Your task to perform on an android device: toggle sleep mode Image 0: 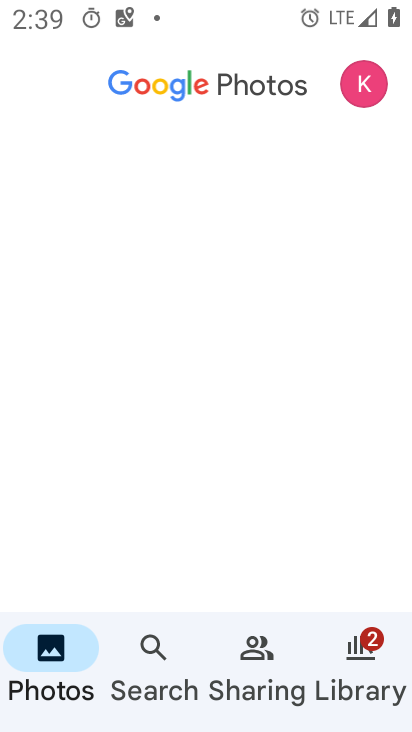
Step 0: press home button
Your task to perform on an android device: toggle sleep mode Image 1: 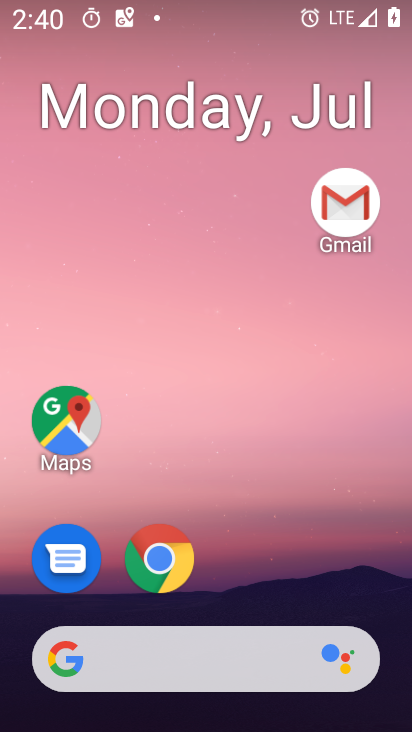
Step 1: drag from (340, 577) to (327, 121)
Your task to perform on an android device: toggle sleep mode Image 2: 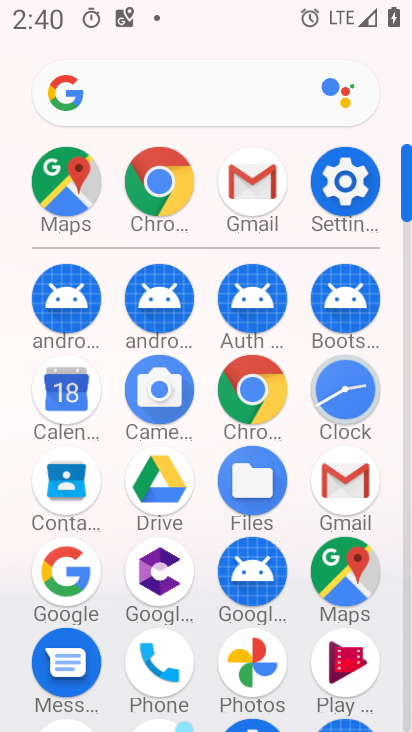
Step 2: click (350, 197)
Your task to perform on an android device: toggle sleep mode Image 3: 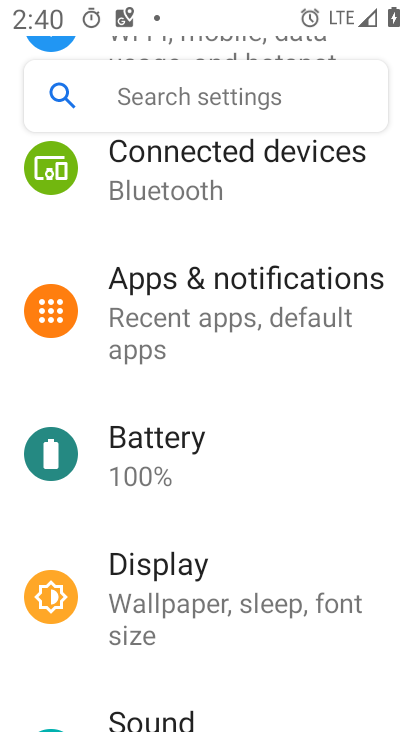
Step 3: drag from (350, 197) to (369, 316)
Your task to perform on an android device: toggle sleep mode Image 4: 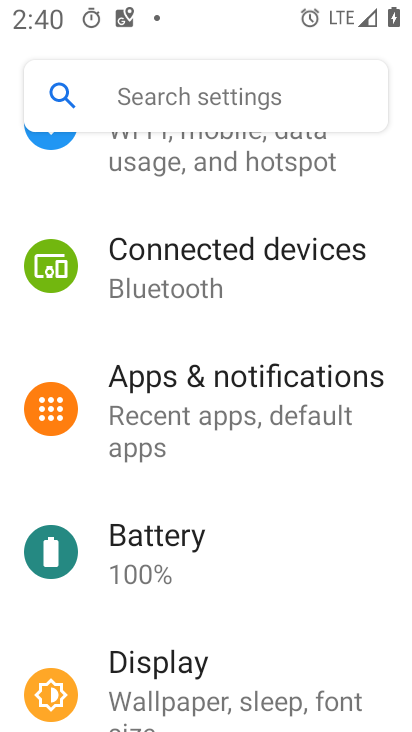
Step 4: drag from (372, 188) to (377, 299)
Your task to perform on an android device: toggle sleep mode Image 5: 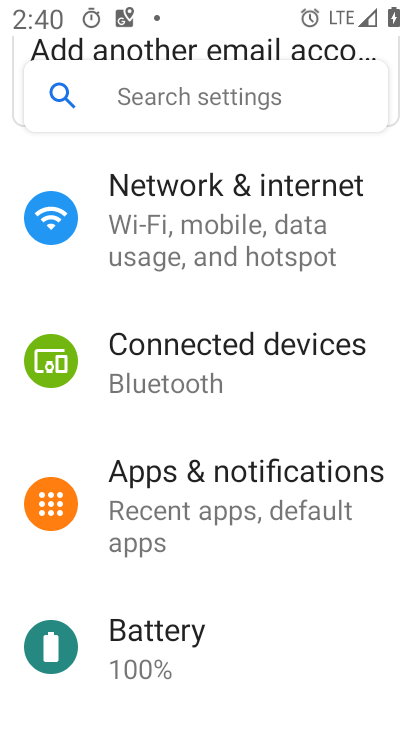
Step 5: drag from (372, 224) to (373, 362)
Your task to perform on an android device: toggle sleep mode Image 6: 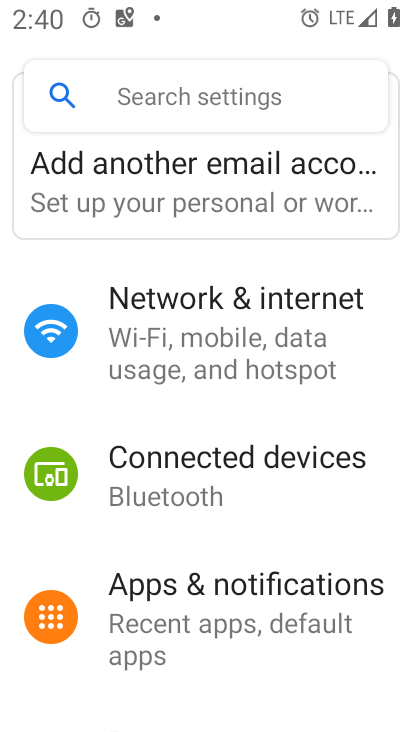
Step 6: drag from (376, 498) to (385, 439)
Your task to perform on an android device: toggle sleep mode Image 7: 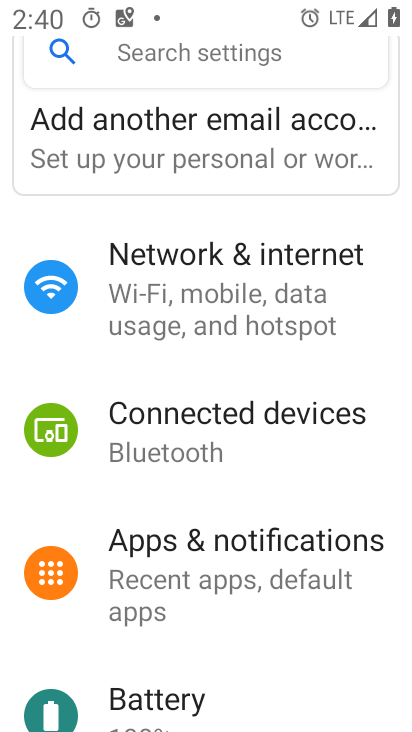
Step 7: drag from (376, 516) to (377, 417)
Your task to perform on an android device: toggle sleep mode Image 8: 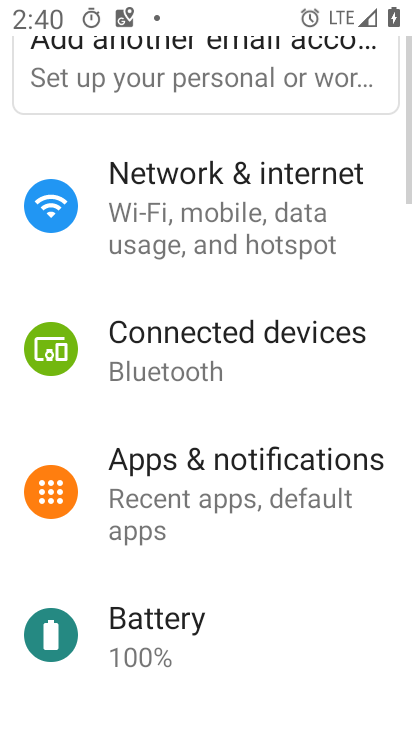
Step 8: drag from (378, 530) to (385, 417)
Your task to perform on an android device: toggle sleep mode Image 9: 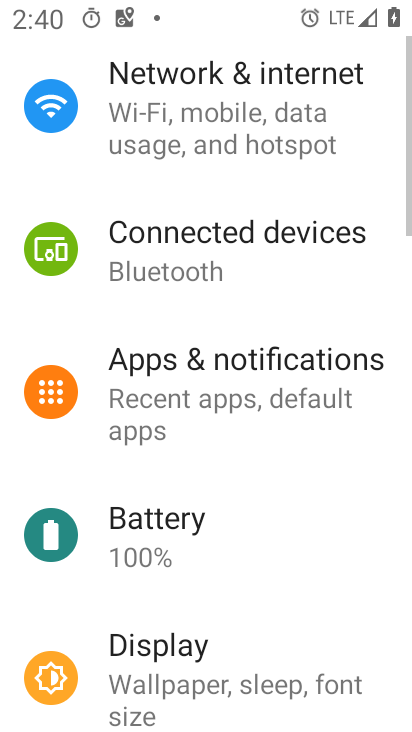
Step 9: drag from (367, 525) to (360, 384)
Your task to perform on an android device: toggle sleep mode Image 10: 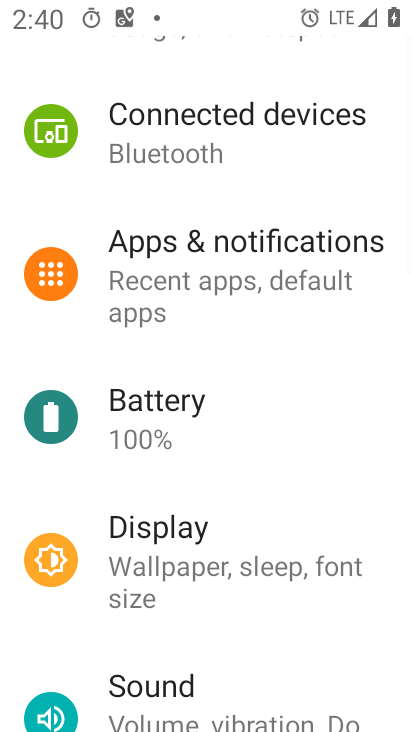
Step 10: drag from (355, 511) to (351, 369)
Your task to perform on an android device: toggle sleep mode Image 11: 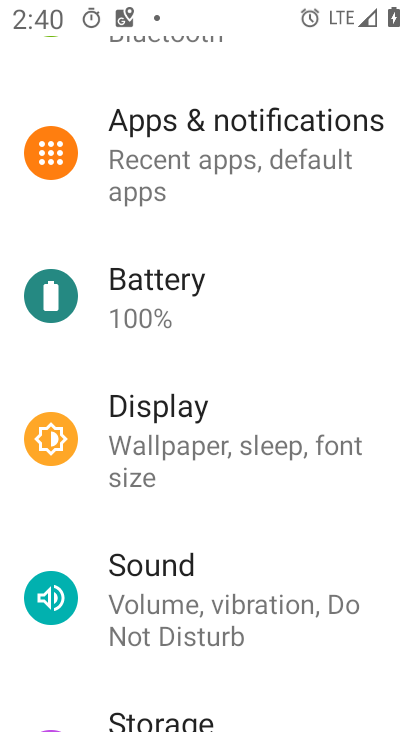
Step 11: drag from (346, 500) to (346, 343)
Your task to perform on an android device: toggle sleep mode Image 12: 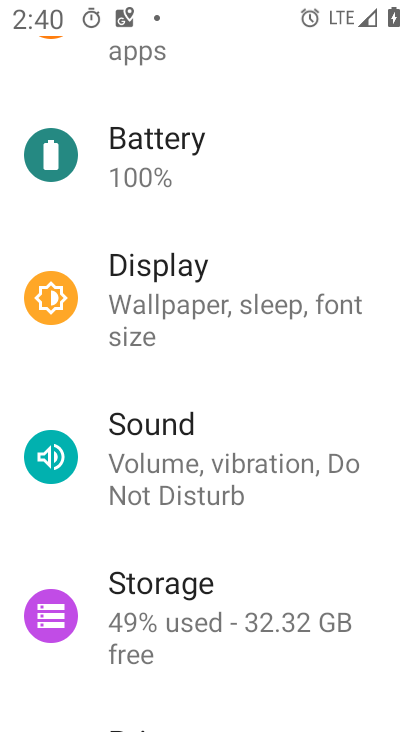
Step 12: drag from (336, 506) to (339, 393)
Your task to perform on an android device: toggle sleep mode Image 13: 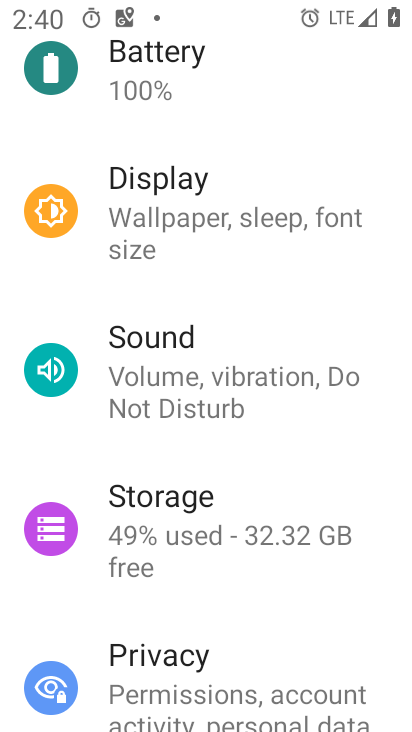
Step 13: click (283, 225)
Your task to perform on an android device: toggle sleep mode Image 14: 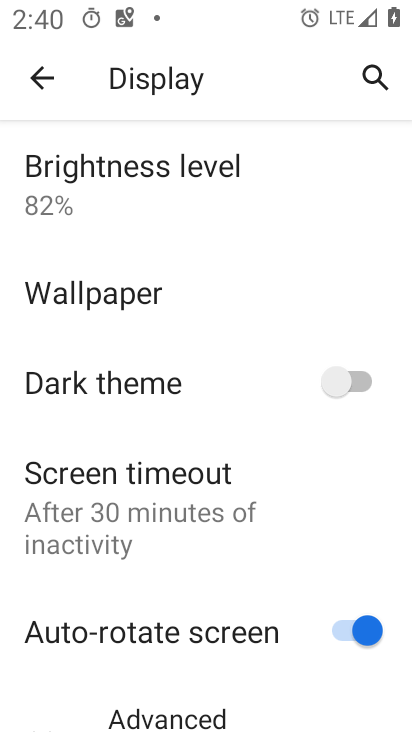
Step 14: drag from (286, 444) to (286, 344)
Your task to perform on an android device: toggle sleep mode Image 15: 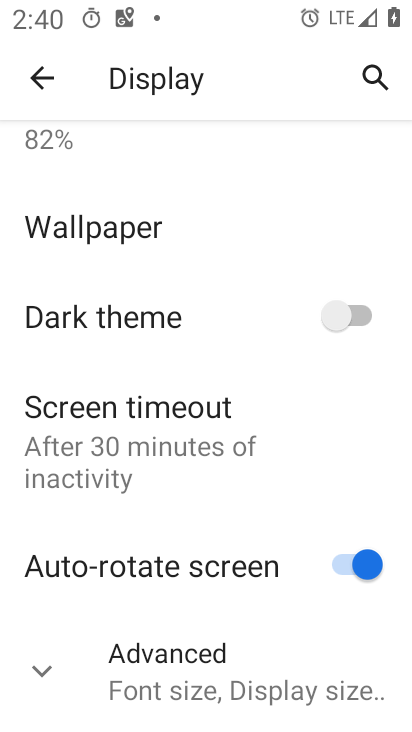
Step 15: click (271, 636)
Your task to perform on an android device: toggle sleep mode Image 16: 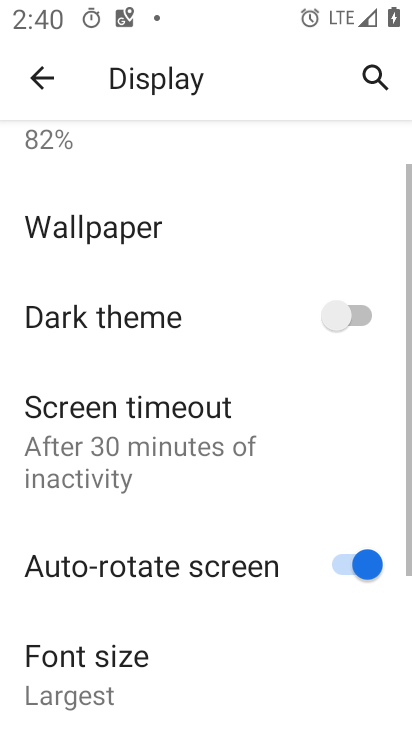
Step 16: task complete